Your task to perform on an android device: Open maps Image 0: 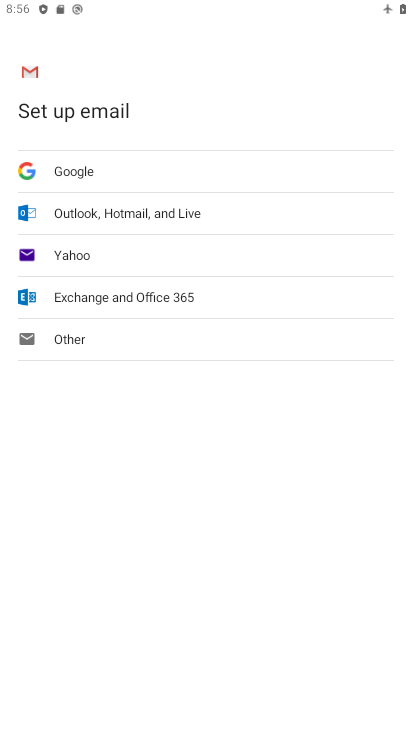
Step 0: press home button
Your task to perform on an android device: Open maps Image 1: 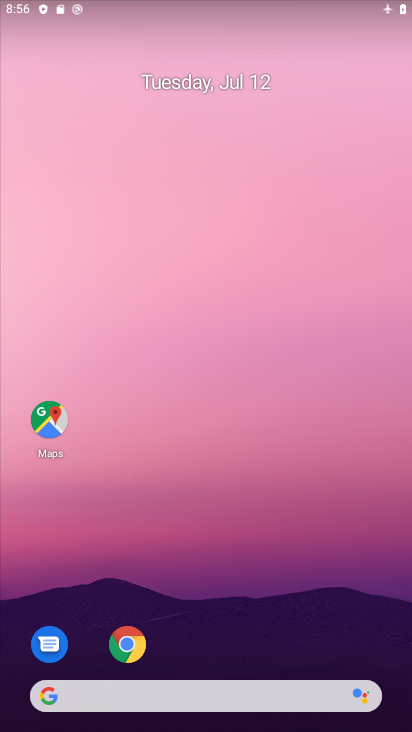
Step 1: click (38, 426)
Your task to perform on an android device: Open maps Image 2: 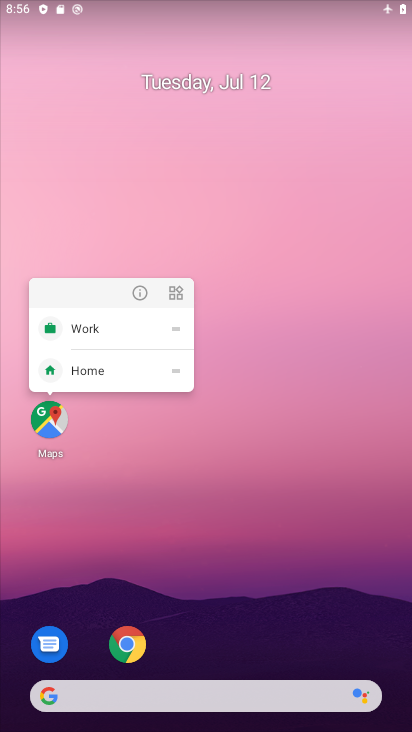
Step 2: click (46, 416)
Your task to perform on an android device: Open maps Image 3: 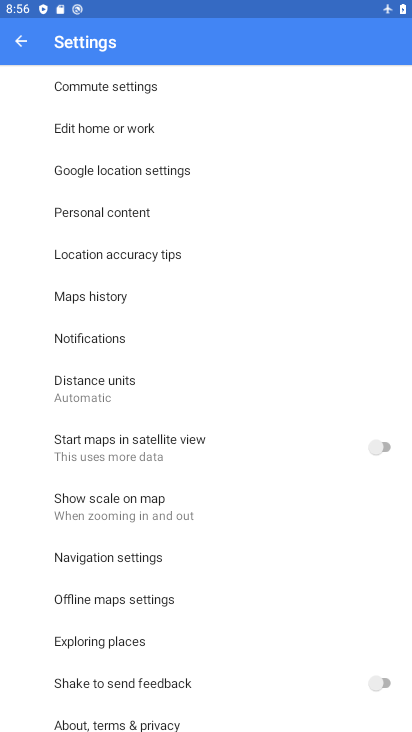
Step 3: click (21, 40)
Your task to perform on an android device: Open maps Image 4: 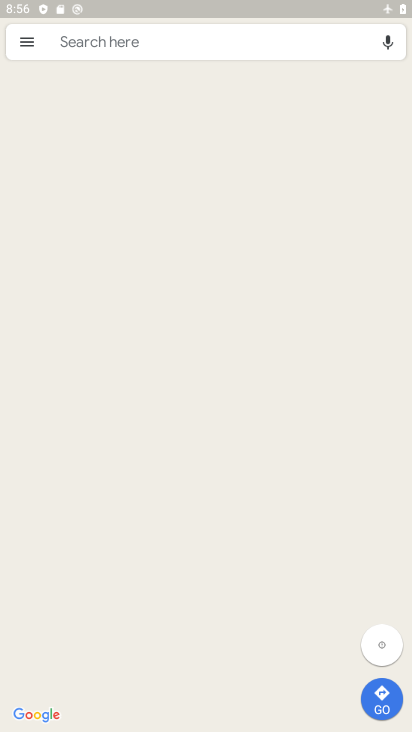
Step 4: task complete